Your task to perform on an android device: open wifi settings Image 0: 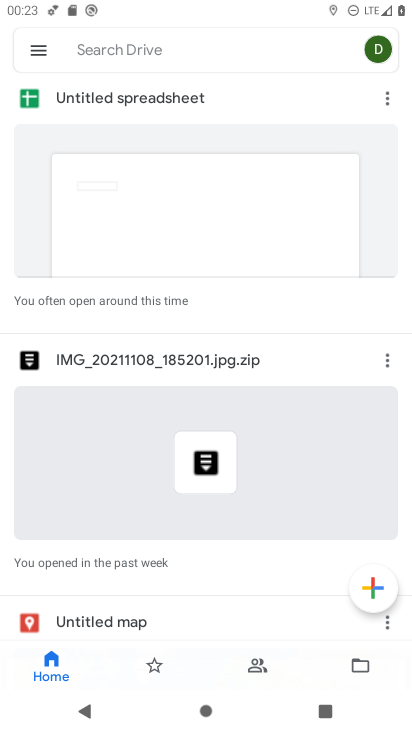
Step 0: press home button
Your task to perform on an android device: open wifi settings Image 1: 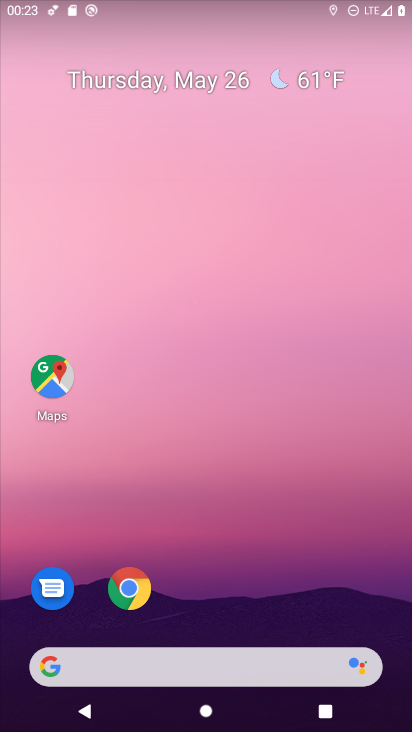
Step 1: drag from (282, 529) to (176, 192)
Your task to perform on an android device: open wifi settings Image 2: 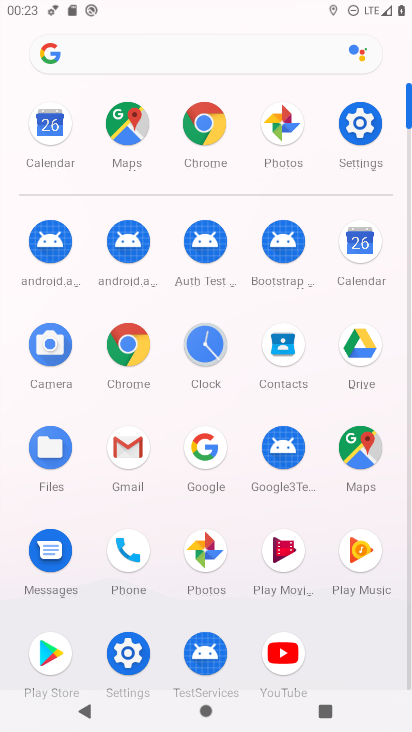
Step 2: click (364, 121)
Your task to perform on an android device: open wifi settings Image 3: 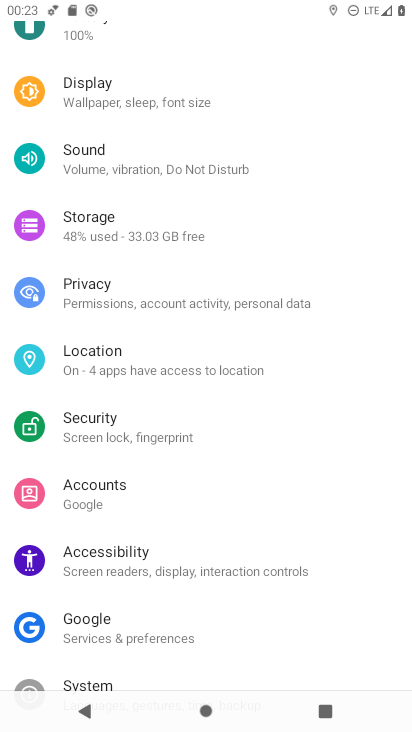
Step 3: drag from (206, 129) to (394, 687)
Your task to perform on an android device: open wifi settings Image 4: 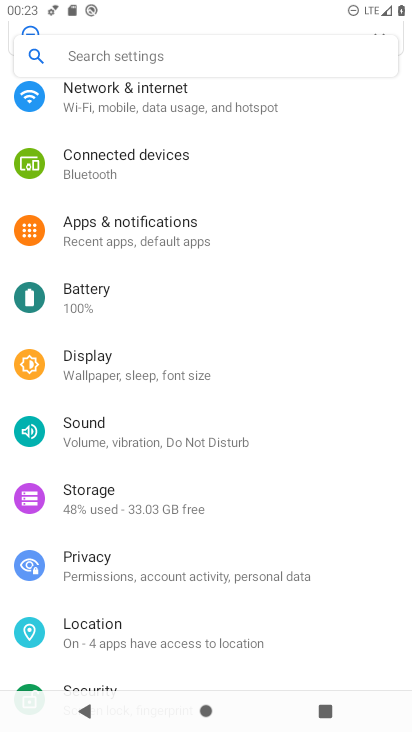
Step 4: click (160, 96)
Your task to perform on an android device: open wifi settings Image 5: 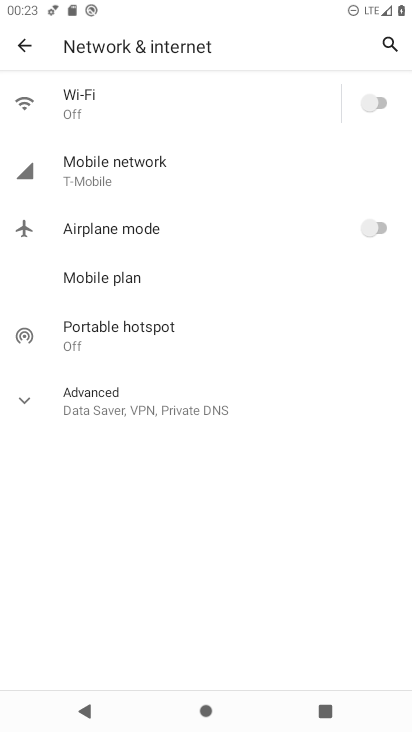
Step 5: click (92, 105)
Your task to perform on an android device: open wifi settings Image 6: 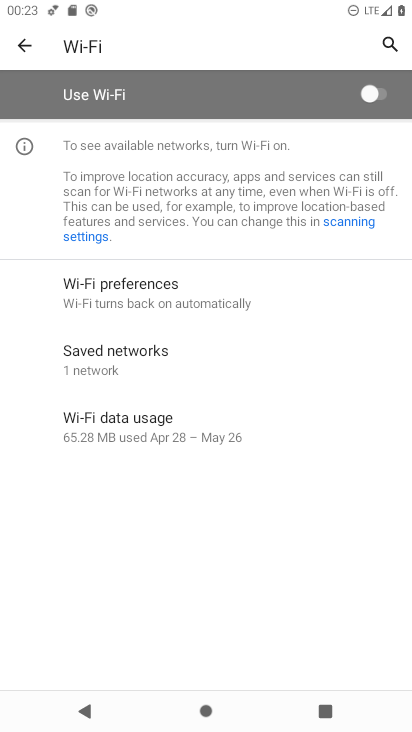
Step 6: task complete